Your task to perform on an android device: turn off wifi Image 0: 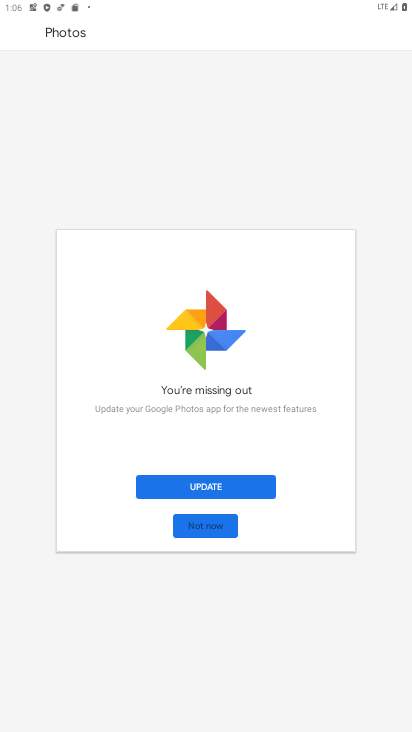
Step 0: press home button
Your task to perform on an android device: turn off wifi Image 1: 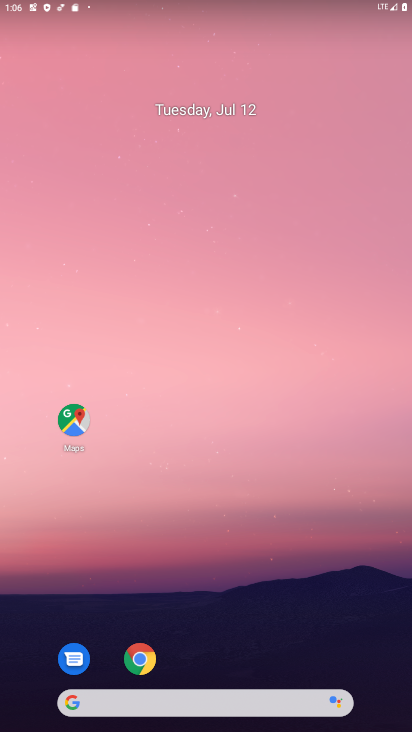
Step 1: drag from (209, 730) to (218, 110)
Your task to perform on an android device: turn off wifi Image 2: 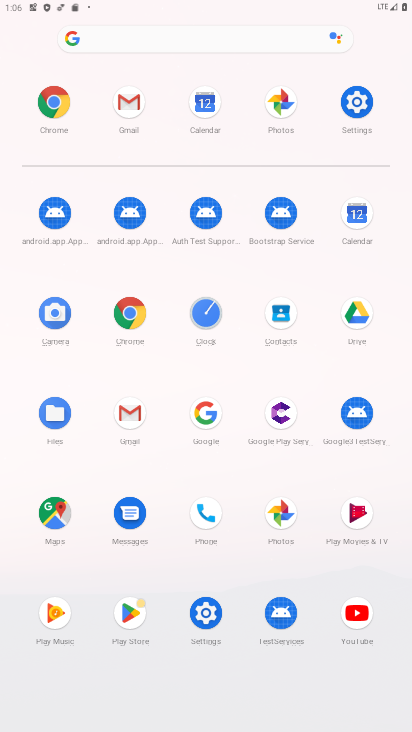
Step 2: click (361, 100)
Your task to perform on an android device: turn off wifi Image 3: 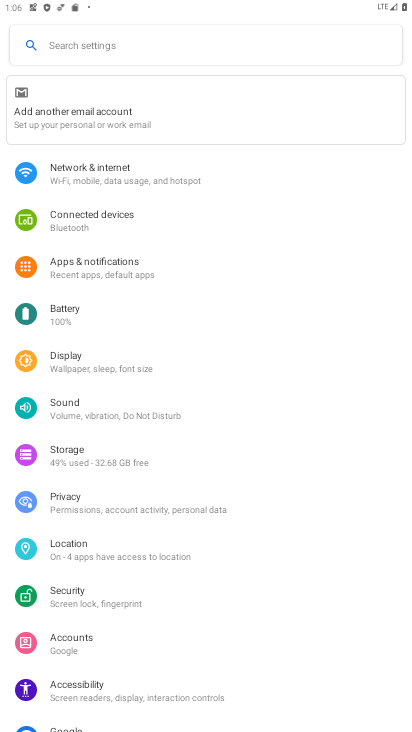
Step 3: click (80, 170)
Your task to perform on an android device: turn off wifi Image 4: 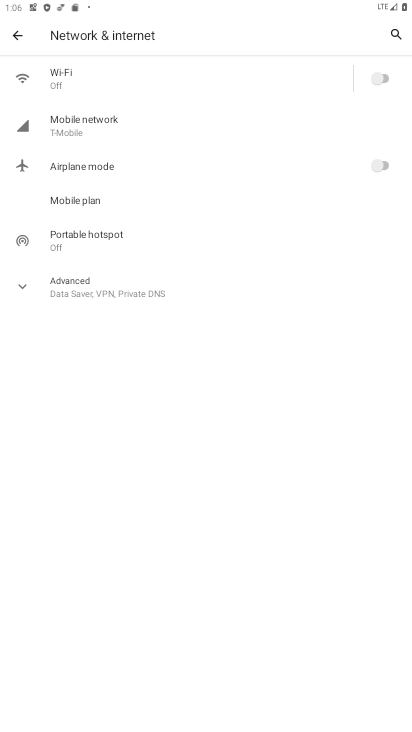
Step 4: task complete